Your task to perform on an android device: Open internet settings Image 0: 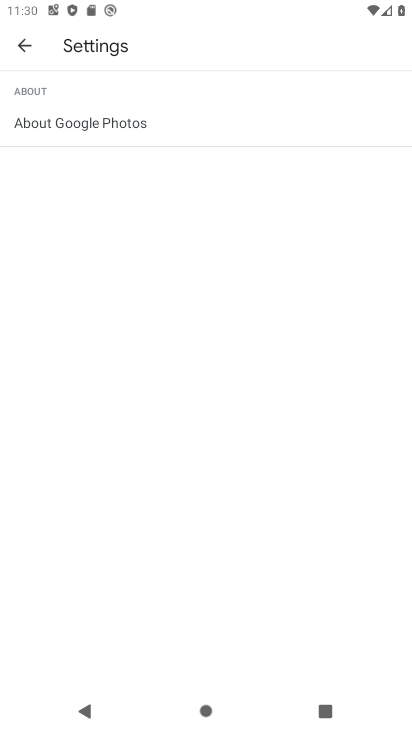
Step 0: press home button
Your task to perform on an android device: Open internet settings Image 1: 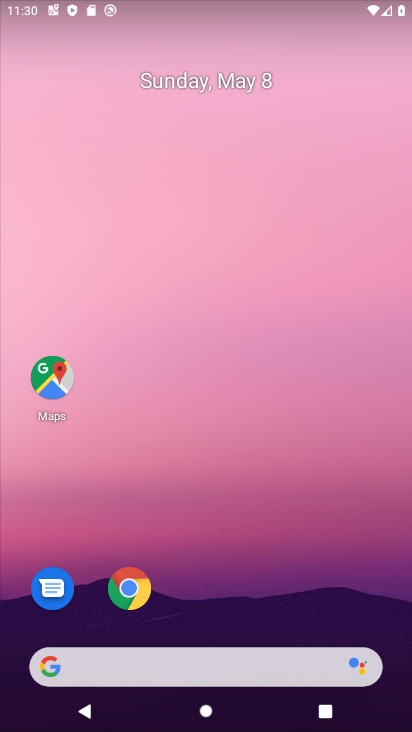
Step 1: drag from (233, 566) to (63, 30)
Your task to perform on an android device: Open internet settings Image 2: 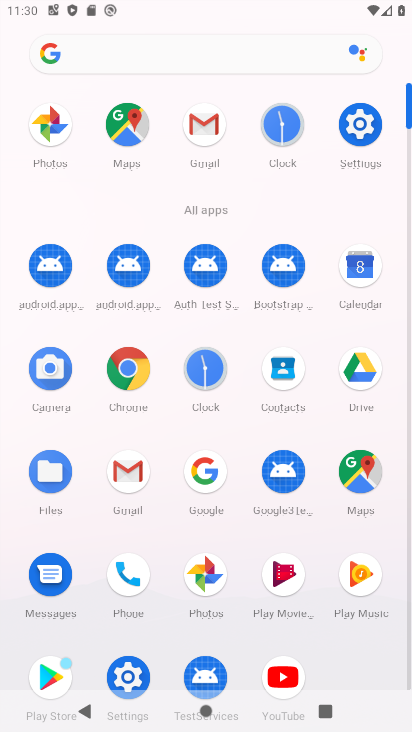
Step 2: click (361, 128)
Your task to perform on an android device: Open internet settings Image 3: 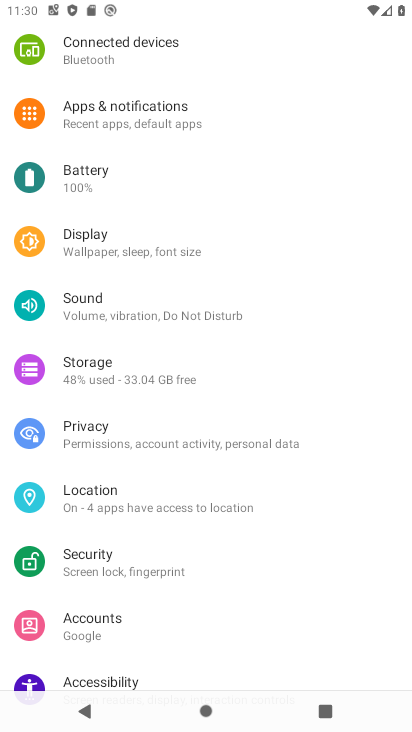
Step 3: drag from (194, 174) to (295, 680)
Your task to perform on an android device: Open internet settings Image 4: 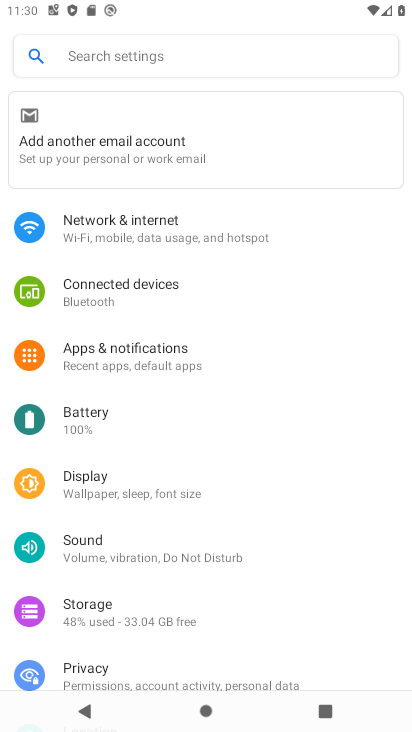
Step 4: click (158, 218)
Your task to perform on an android device: Open internet settings Image 5: 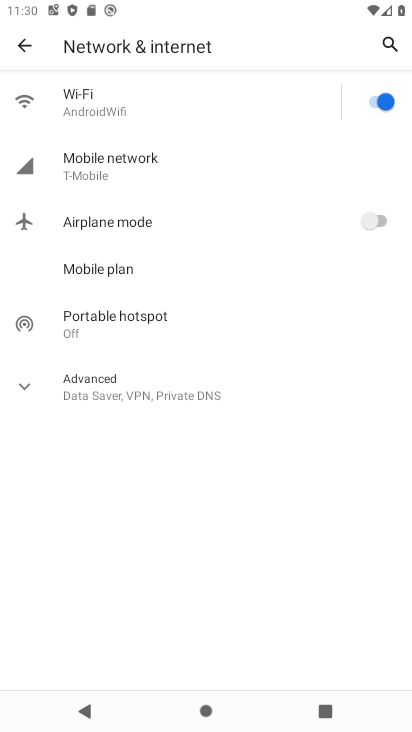
Step 5: task complete